Your task to perform on an android device: turn on bluetooth scan Image 0: 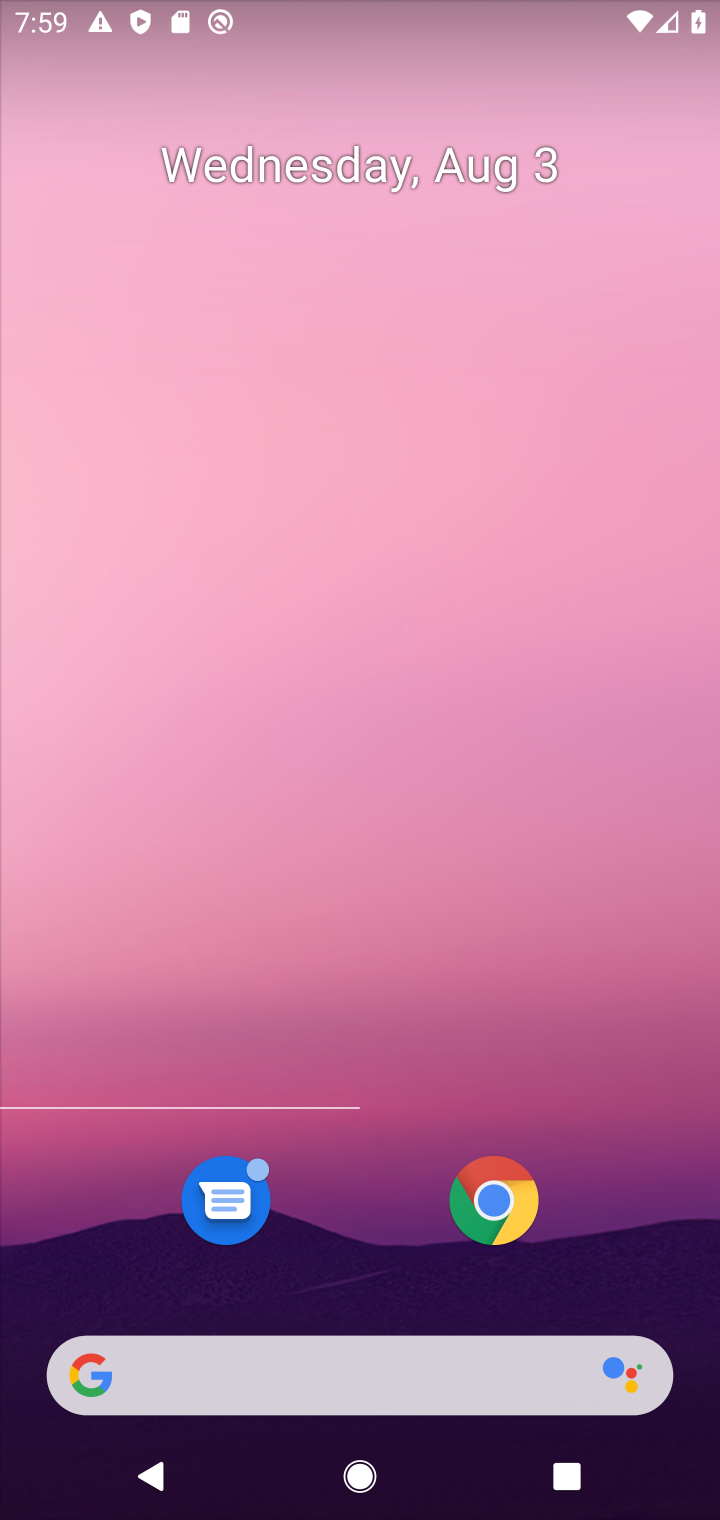
Step 0: press back button
Your task to perform on an android device: turn on bluetooth scan Image 1: 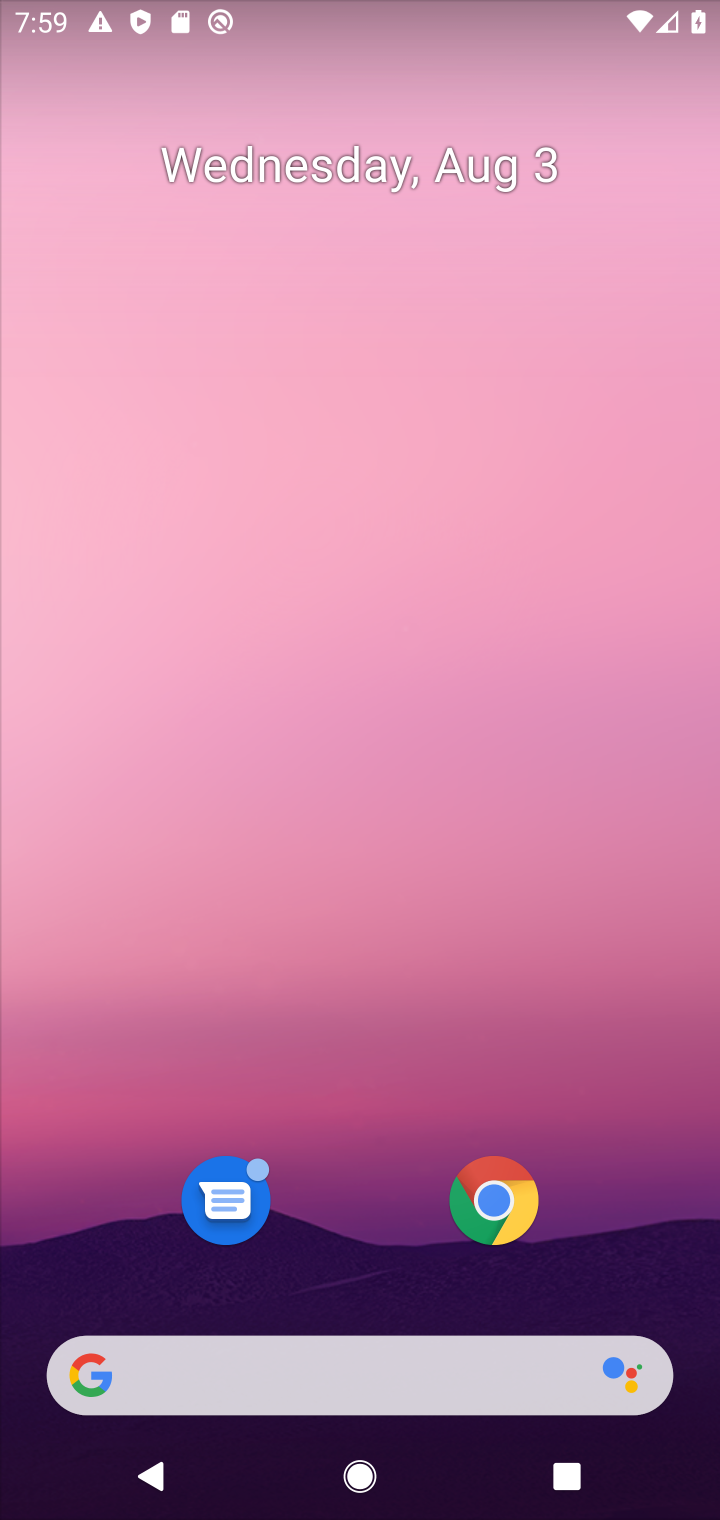
Step 1: drag from (357, 1274) to (390, 132)
Your task to perform on an android device: turn on bluetooth scan Image 2: 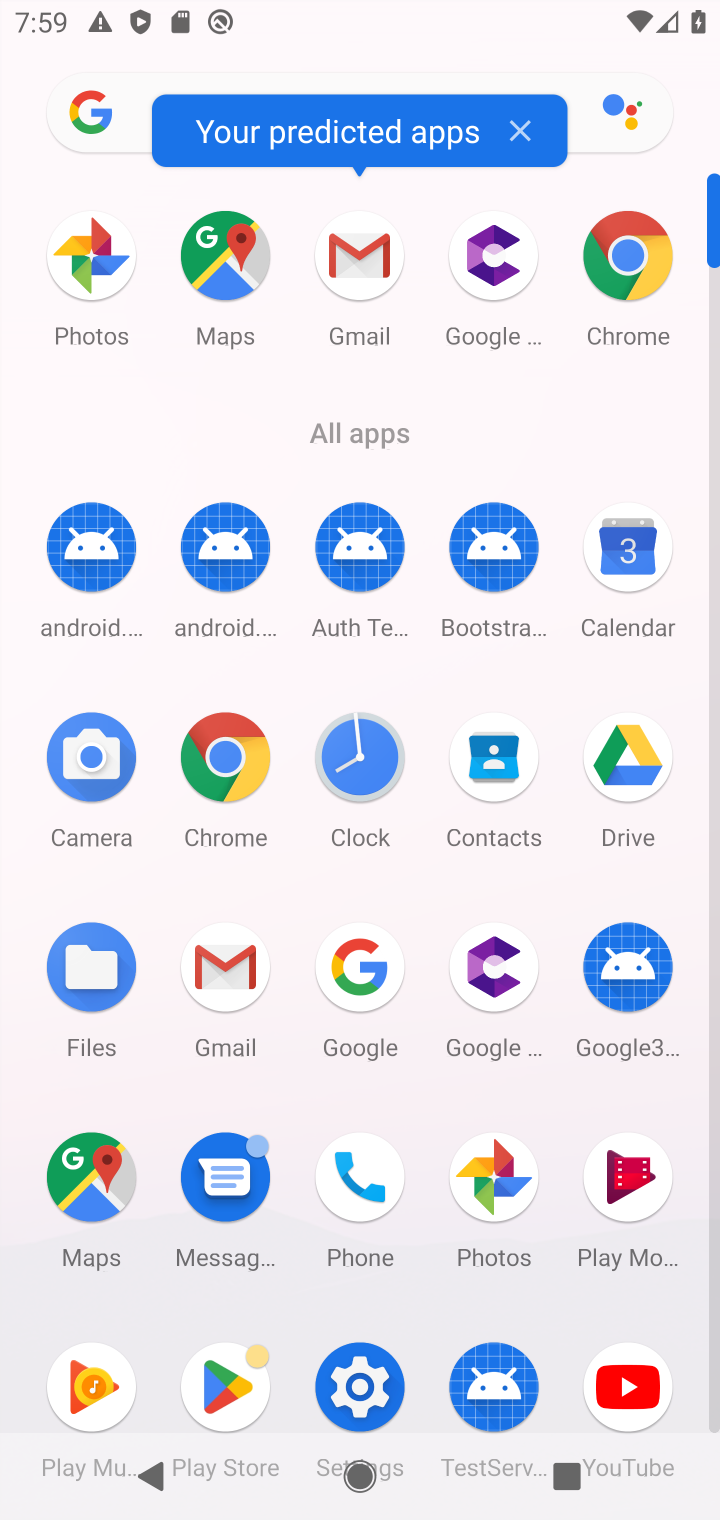
Step 2: click (382, 1335)
Your task to perform on an android device: turn on bluetooth scan Image 3: 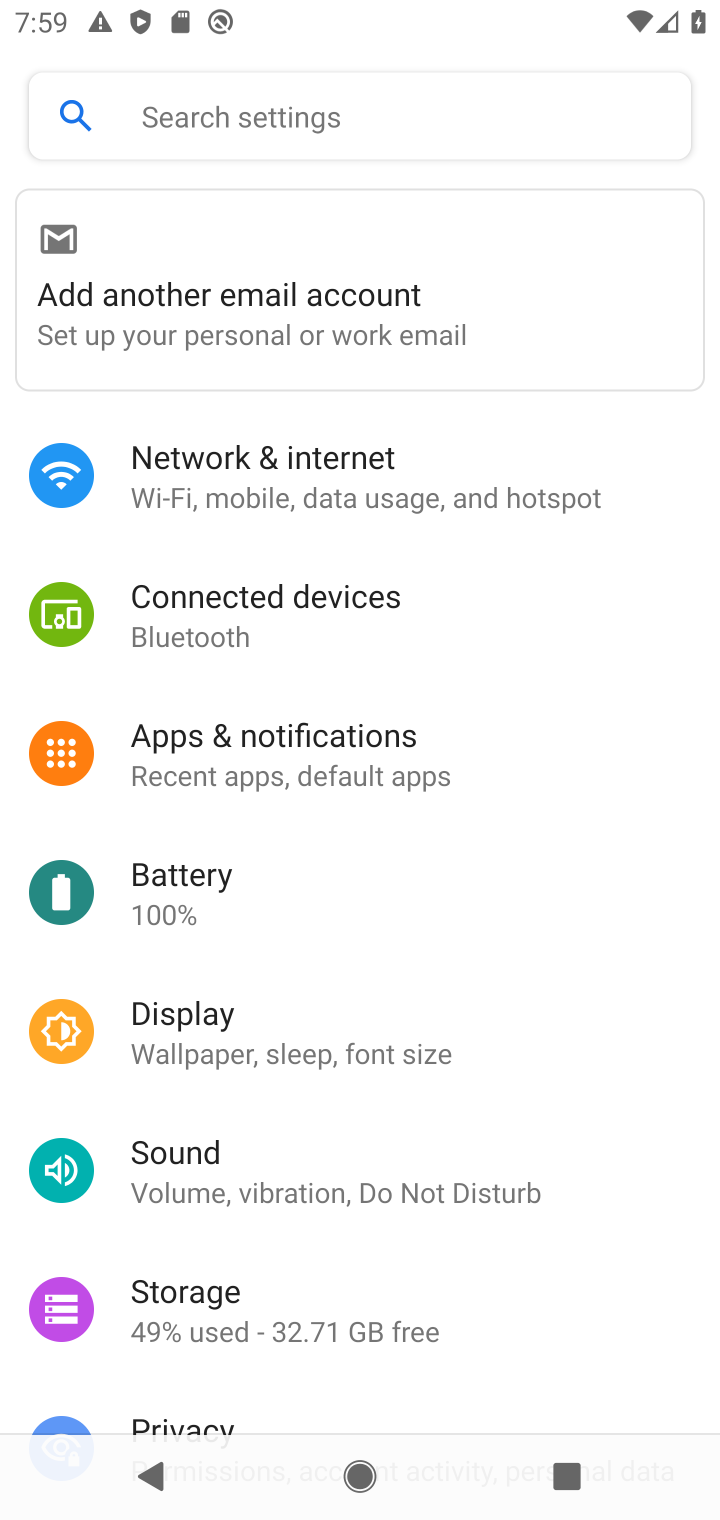
Step 3: drag from (335, 1160) to (322, 421)
Your task to perform on an android device: turn on bluetooth scan Image 4: 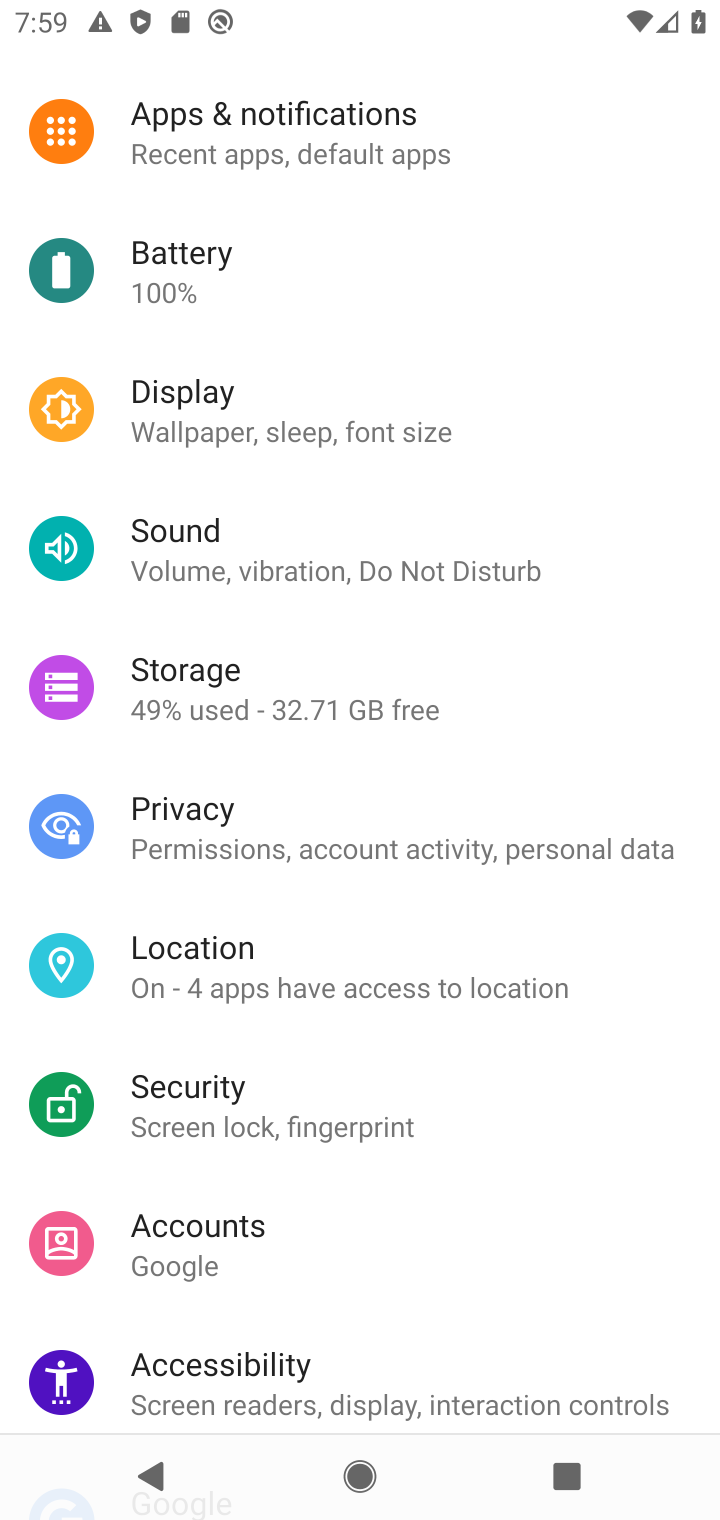
Step 4: click (214, 971)
Your task to perform on an android device: turn on bluetooth scan Image 5: 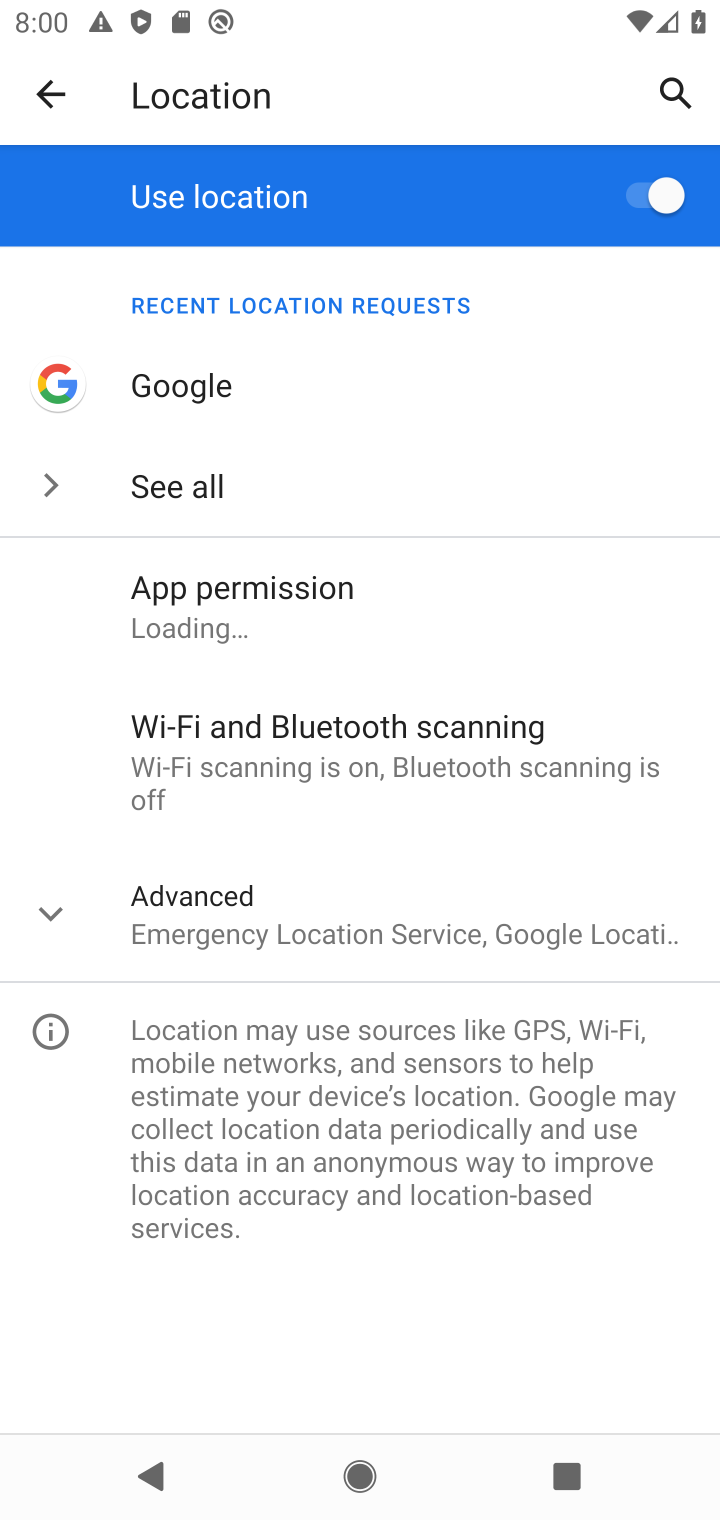
Step 5: click (402, 909)
Your task to perform on an android device: turn on bluetooth scan Image 6: 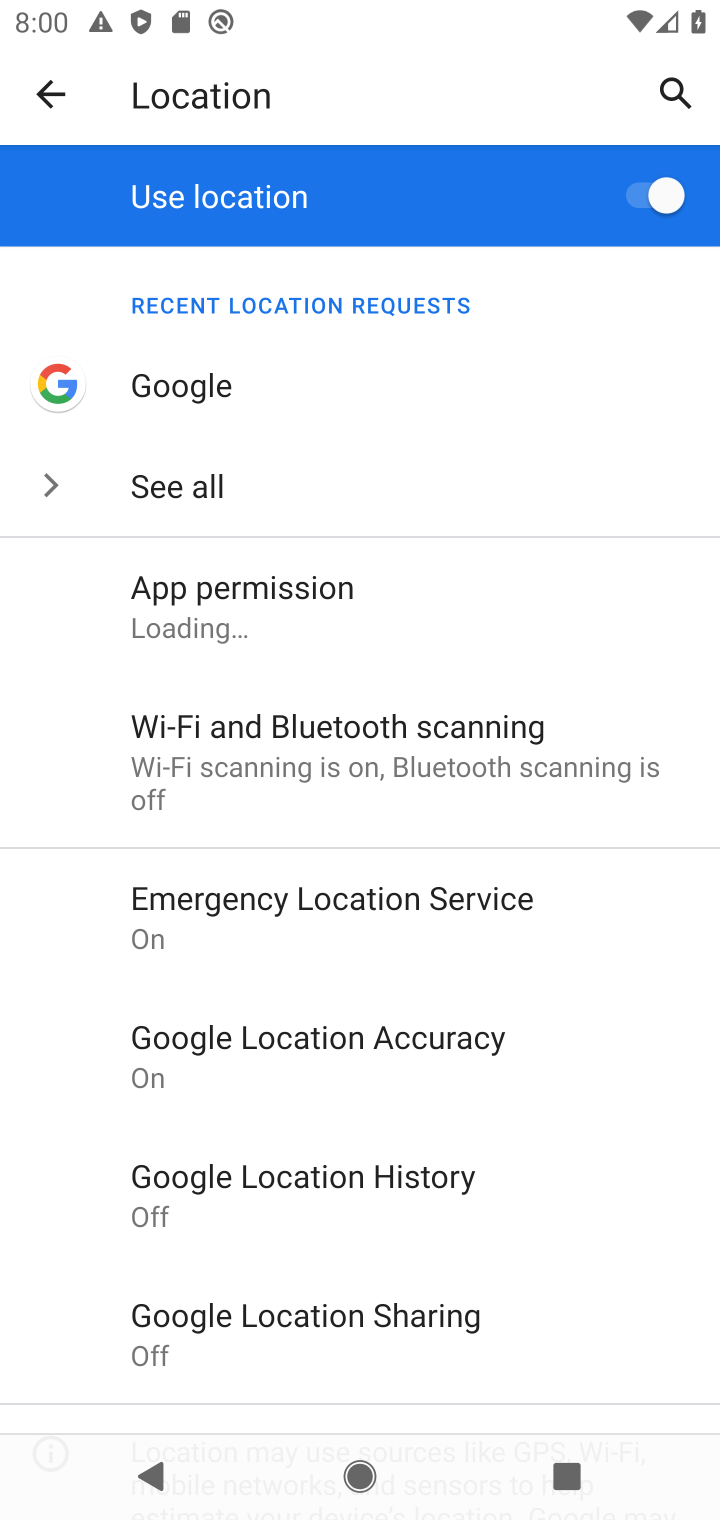
Step 6: click (414, 780)
Your task to perform on an android device: turn on bluetooth scan Image 7: 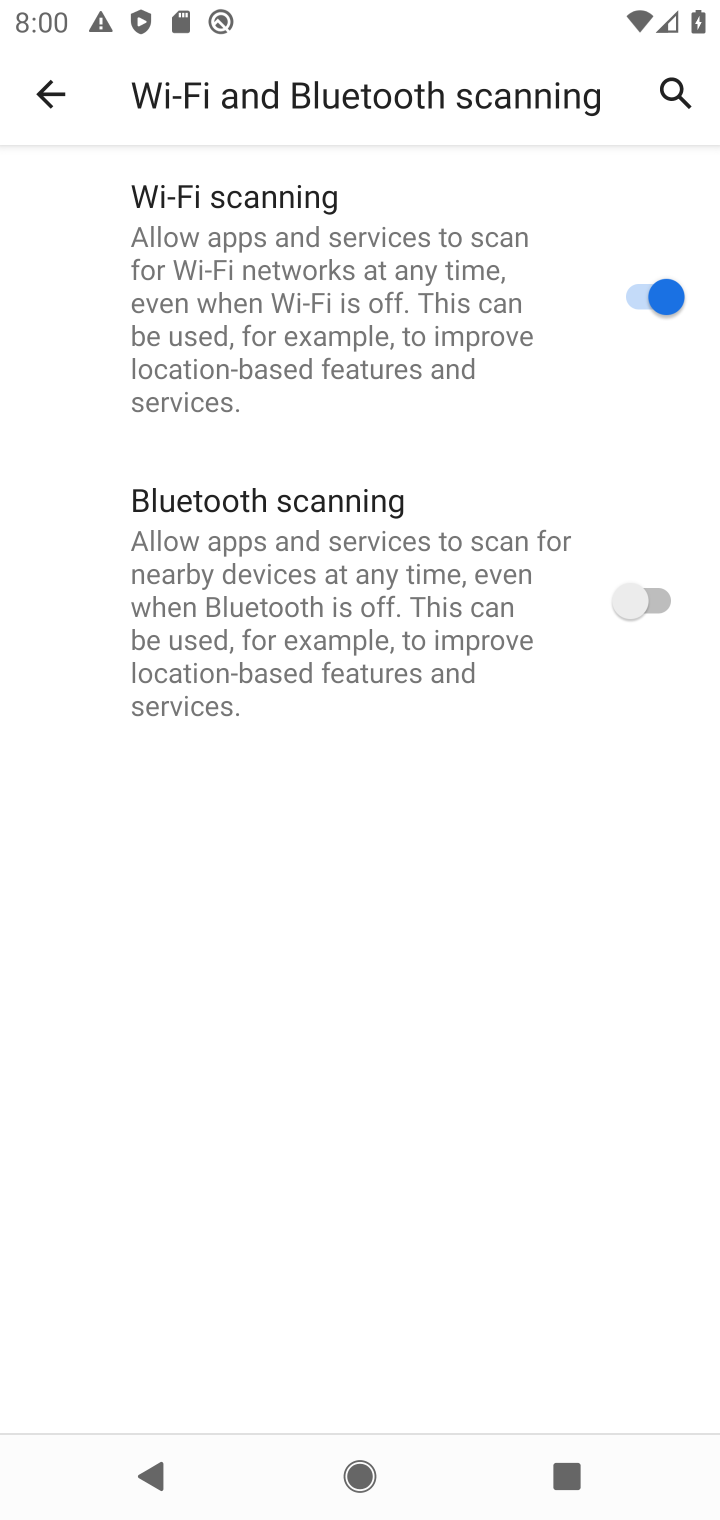
Step 7: click (629, 613)
Your task to perform on an android device: turn on bluetooth scan Image 8: 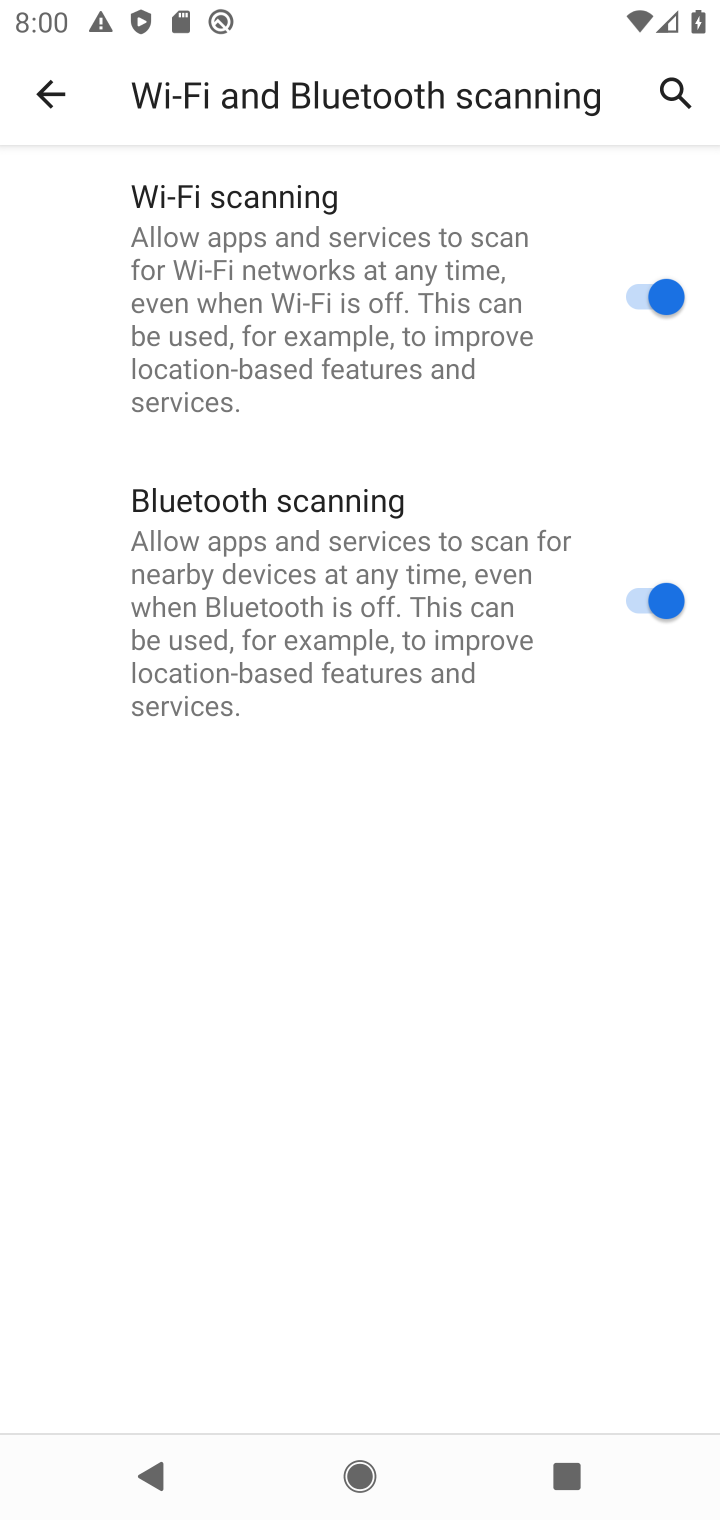
Step 8: task complete